Your task to perform on an android device: add a label to a message in the gmail app Image 0: 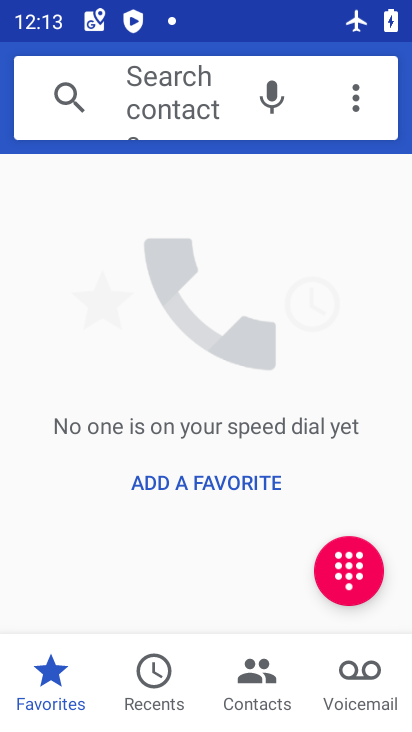
Step 0: press home button
Your task to perform on an android device: add a label to a message in the gmail app Image 1: 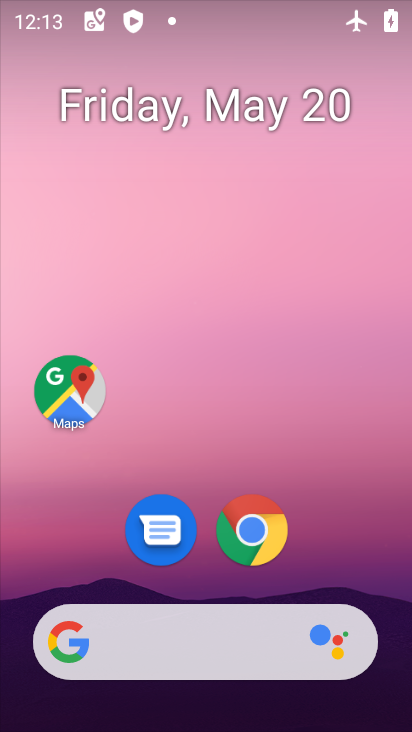
Step 1: drag from (164, 719) to (306, 82)
Your task to perform on an android device: add a label to a message in the gmail app Image 2: 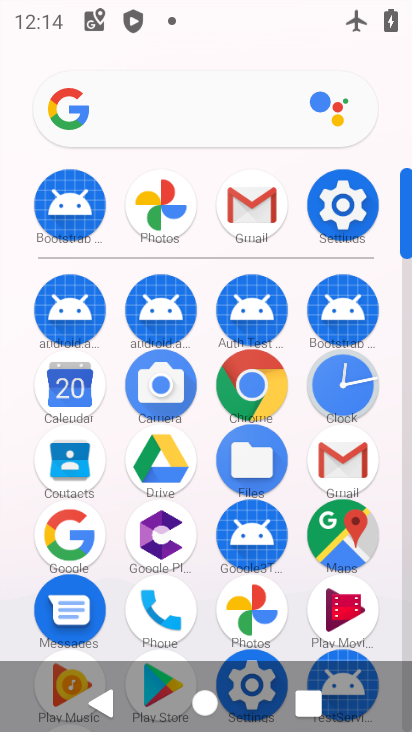
Step 2: click (258, 207)
Your task to perform on an android device: add a label to a message in the gmail app Image 3: 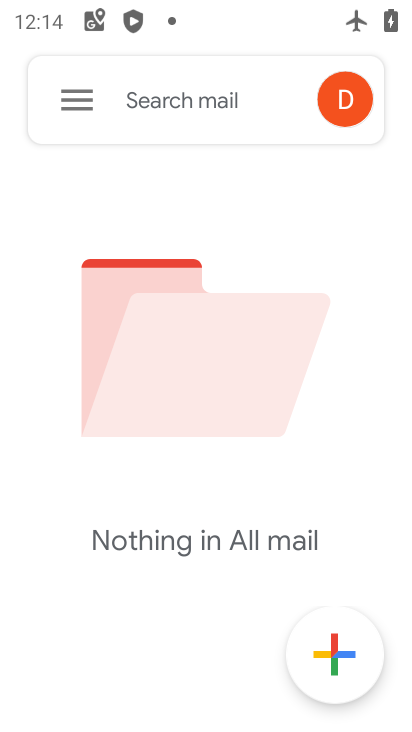
Step 3: task complete